Your task to perform on an android device: show emergency info Image 0: 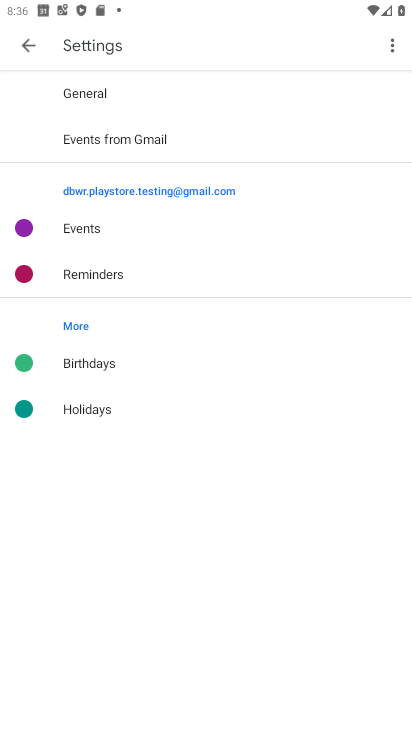
Step 0: press home button
Your task to perform on an android device: show emergency info Image 1: 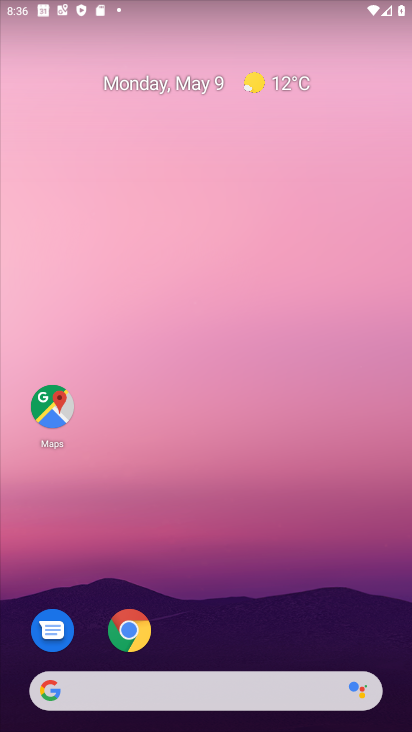
Step 1: drag from (182, 670) to (183, 260)
Your task to perform on an android device: show emergency info Image 2: 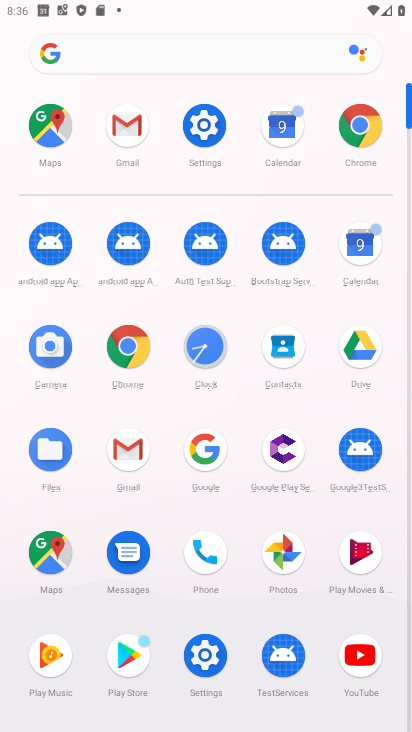
Step 2: click (207, 127)
Your task to perform on an android device: show emergency info Image 3: 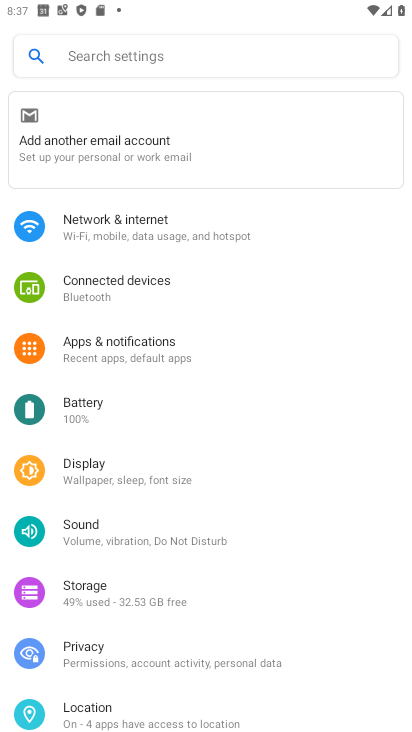
Step 3: drag from (142, 676) to (184, 450)
Your task to perform on an android device: show emergency info Image 4: 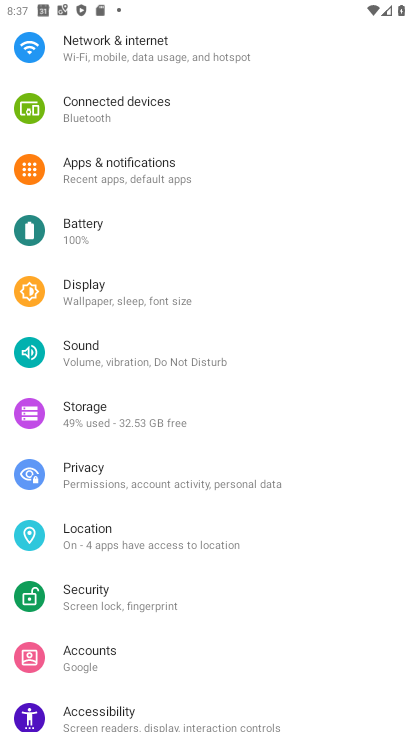
Step 4: drag from (99, 708) to (113, 407)
Your task to perform on an android device: show emergency info Image 5: 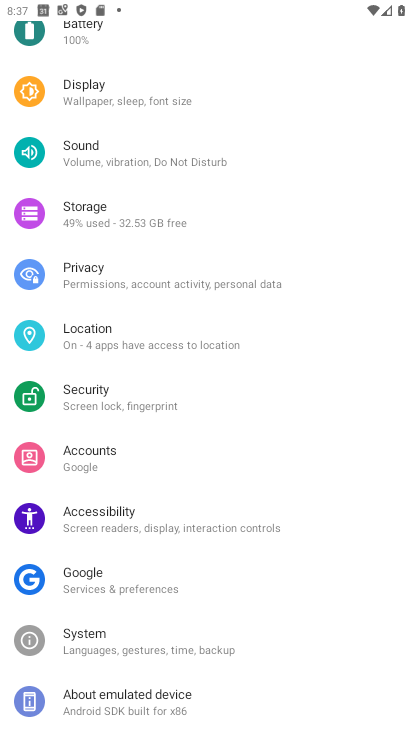
Step 5: click (107, 698)
Your task to perform on an android device: show emergency info Image 6: 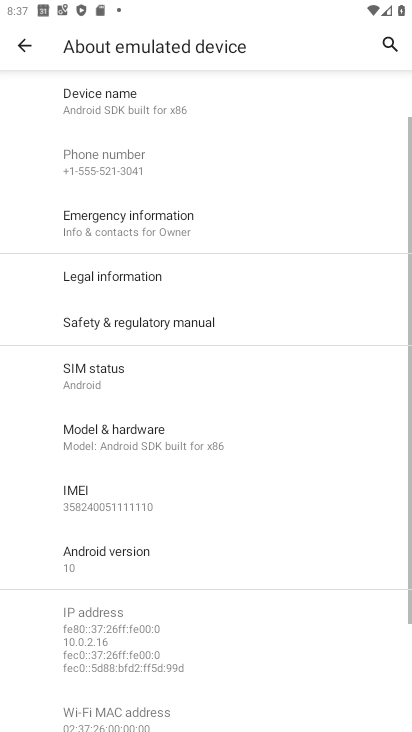
Step 6: click (127, 219)
Your task to perform on an android device: show emergency info Image 7: 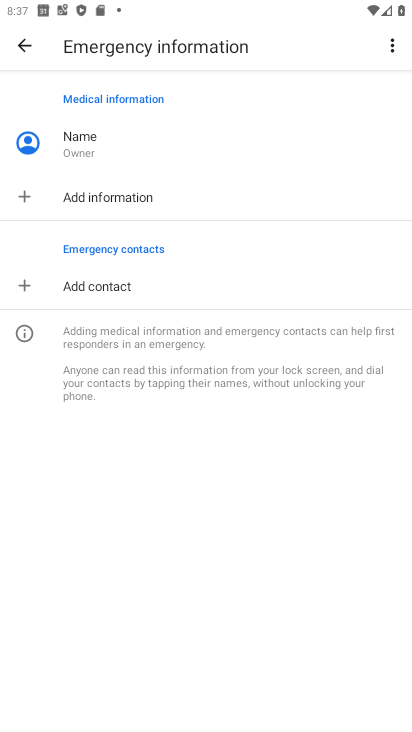
Step 7: task complete